Your task to perform on an android device: What's on my calendar tomorrow? Image 0: 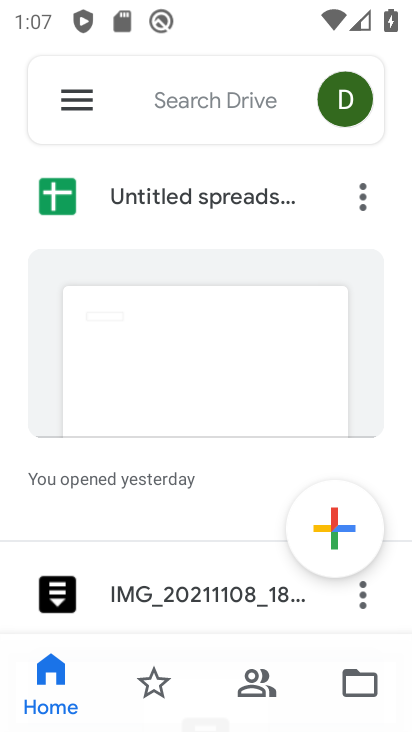
Step 0: press home button
Your task to perform on an android device: What's on my calendar tomorrow? Image 1: 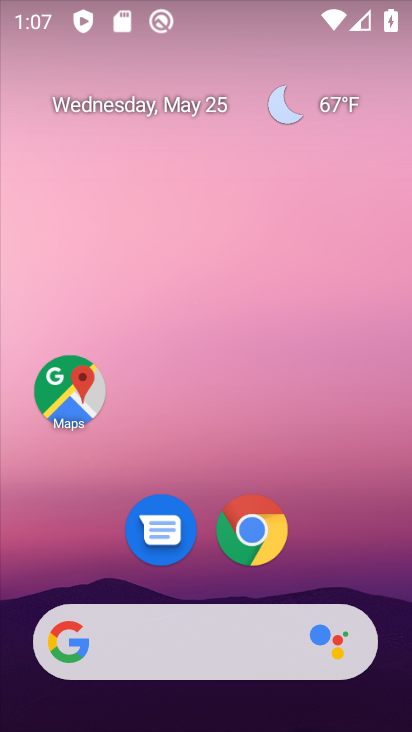
Step 1: drag from (333, 572) to (268, 224)
Your task to perform on an android device: What's on my calendar tomorrow? Image 2: 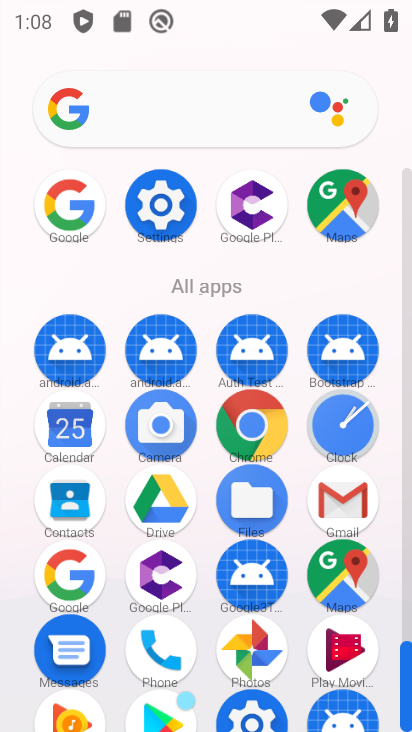
Step 2: click (72, 429)
Your task to perform on an android device: What's on my calendar tomorrow? Image 3: 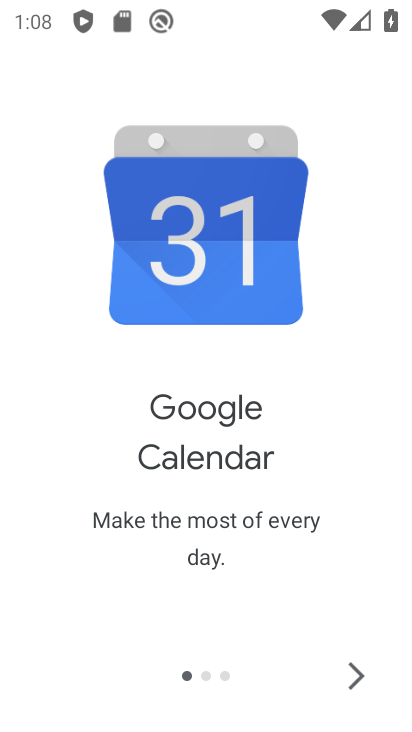
Step 3: click (360, 674)
Your task to perform on an android device: What's on my calendar tomorrow? Image 4: 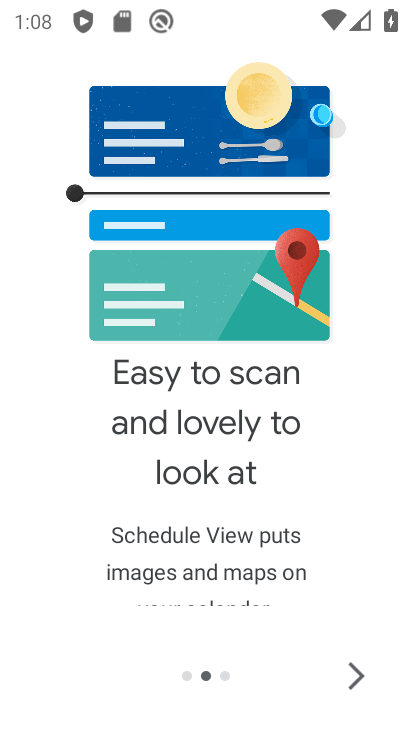
Step 4: click (360, 674)
Your task to perform on an android device: What's on my calendar tomorrow? Image 5: 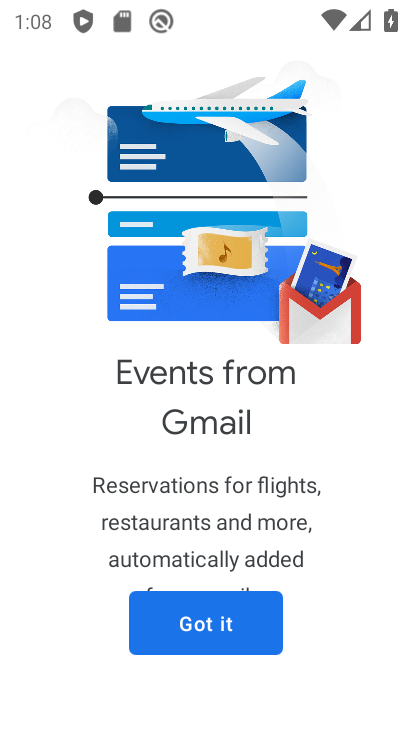
Step 5: click (202, 618)
Your task to perform on an android device: What's on my calendar tomorrow? Image 6: 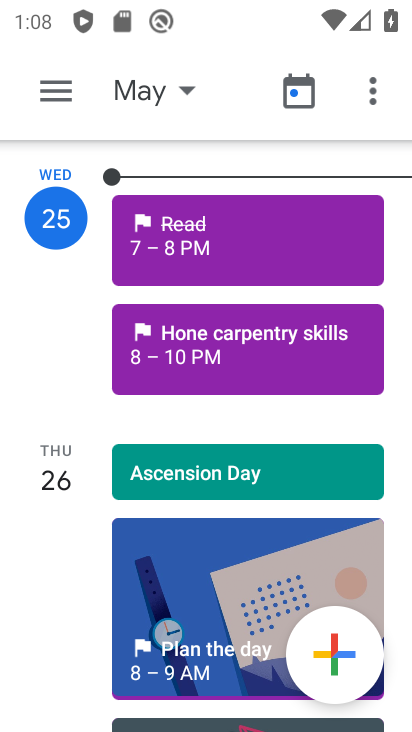
Step 6: click (186, 92)
Your task to perform on an android device: What's on my calendar tomorrow? Image 7: 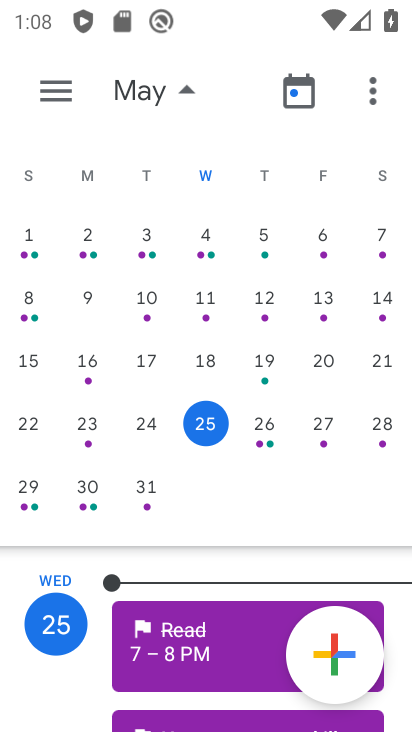
Step 7: click (269, 428)
Your task to perform on an android device: What's on my calendar tomorrow? Image 8: 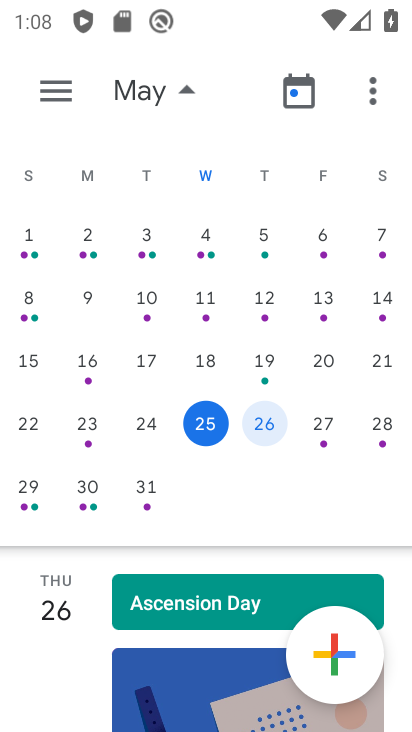
Step 8: click (53, 91)
Your task to perform on an android device: What's on my calendar tomorrow? Image 9: 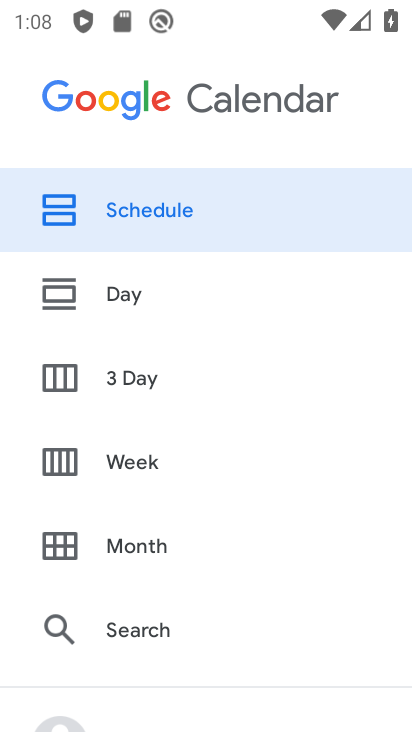
Step 9: click (110, 195)
Your task to perform on an android device: What's on my calendar tomorrow? Image 10: 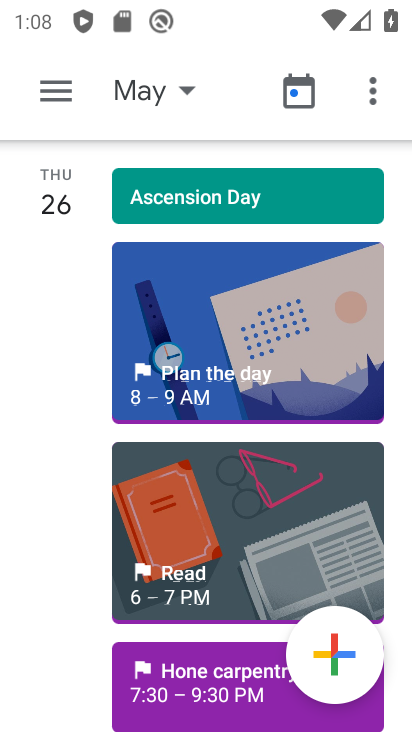
Step 10: task complete